Your task to perform on an android device: change the clock display to analog Image 0: 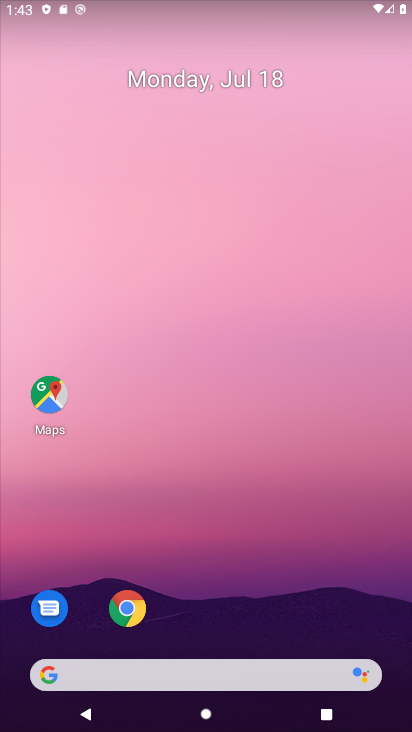
Step 0: drag from (192, 664) to (156, 30)
Your task to perform on an android device: change the clock display to analog Image 1: 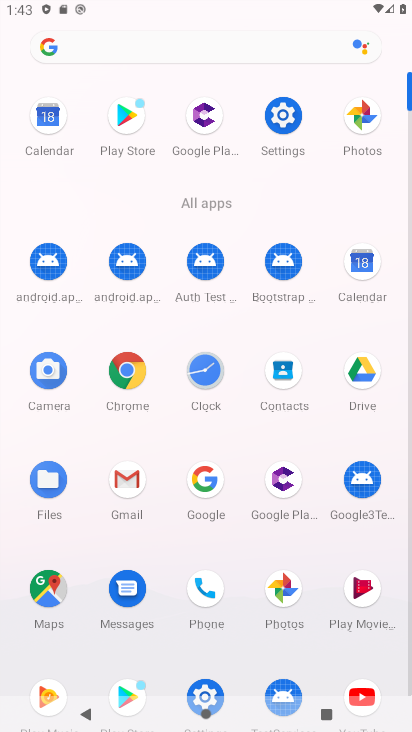
Step 1: click (214, 390)
Your task to perform on an android device: change the clock display to analog Image 2: 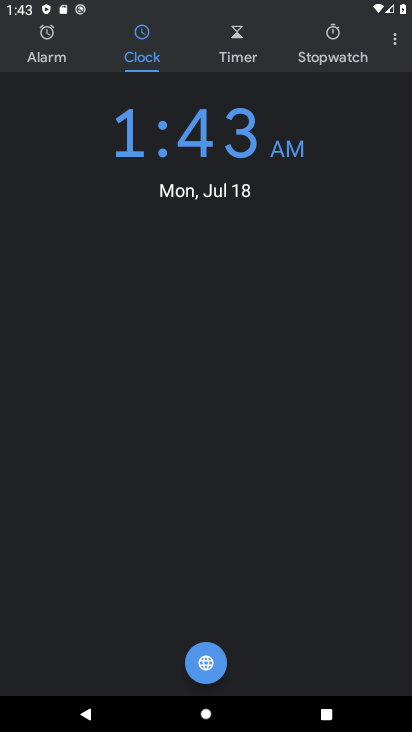
Step 2: click (400, 44)
Your task to perform on an android device: change the clock display to analog Image 3: 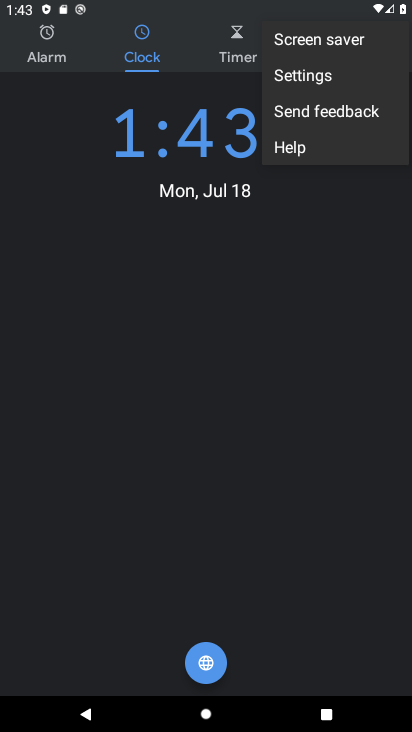
Step 3: click (321, 77)
Your task to perform on an android device: change the clock display to analog Image 4: 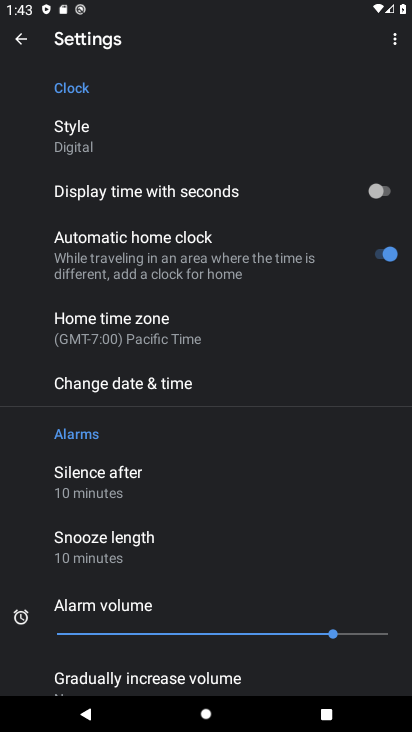
Step 4: click (151, 126)
Your task to perform on an android device: change the clock display to analog Image 5: 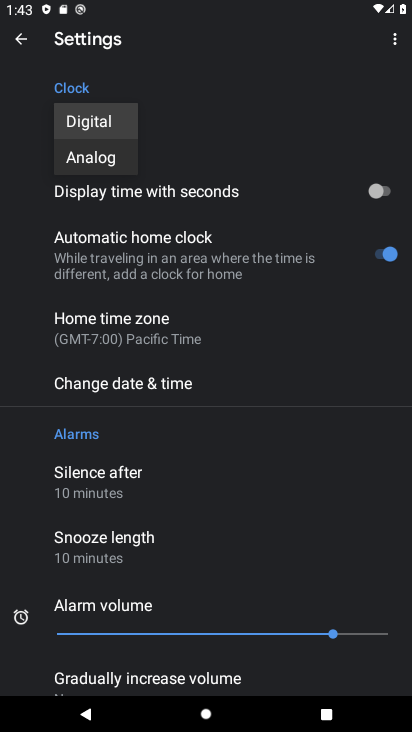
Step 5: click (101, 153)
Your task to perform on an android device: change the clock display to analog Image 6: 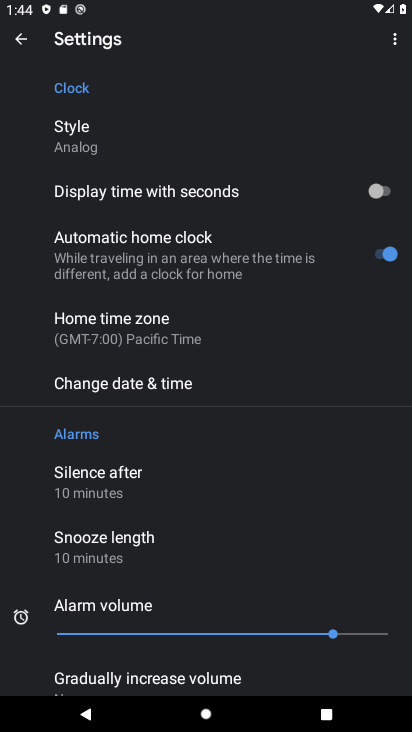
Step 6: task complete